Your task to perform on an android device: Search for vegetarian restaurants on Maps Image 0: 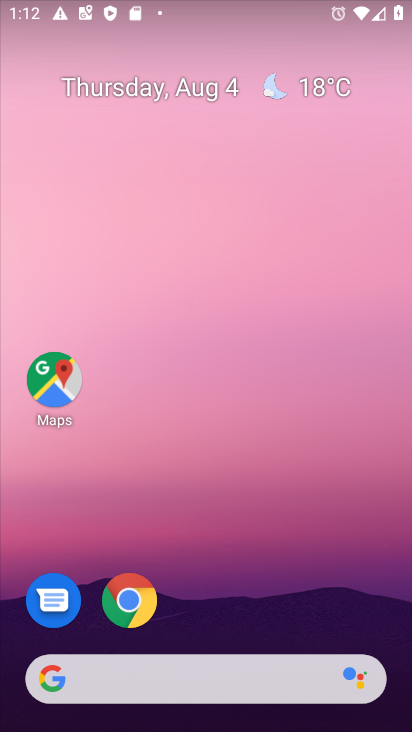
Step 0: press home button
Your task to perform on an android device: Search for vegetarian restaurants on Maps Image 1: 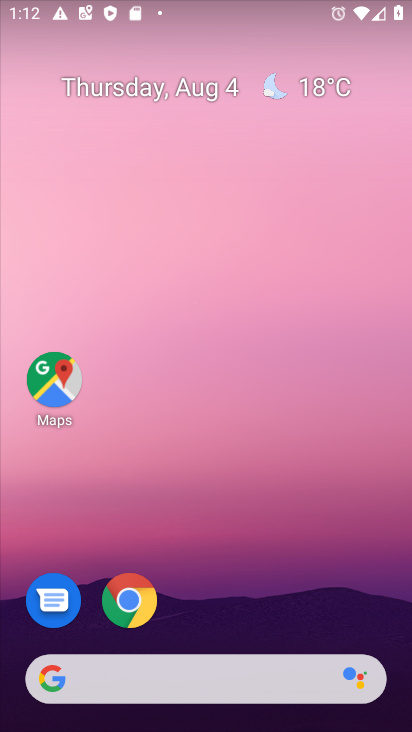
Step 1: click (43, 391)
Your task to perform on an android device: Search for vegetarian restaurants on Maps Image 2: 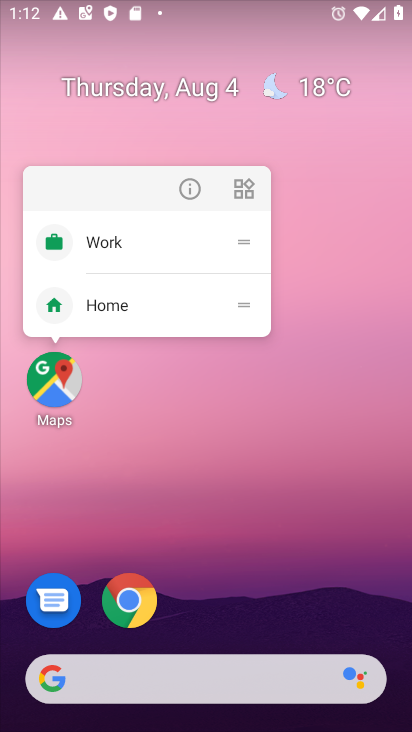
Step 2: click (54, 381)
Your task to perform on an android device: Search for vegetarian restaurants on Maps Image 3: 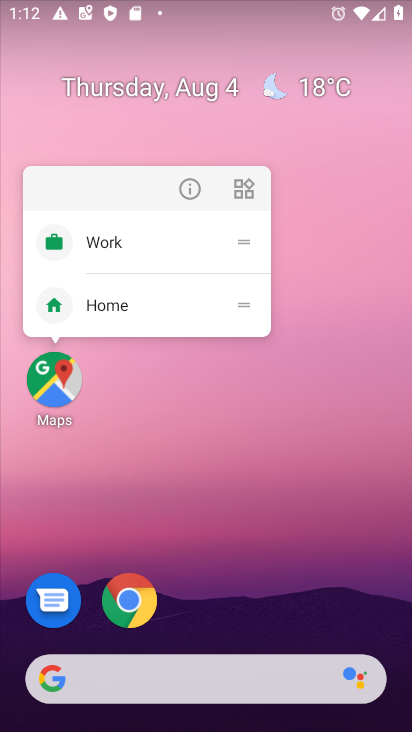
Step 3: click (54, 380)
Your task to perform on an android device: Search for vegetarian restaurants on Maps Image 4: 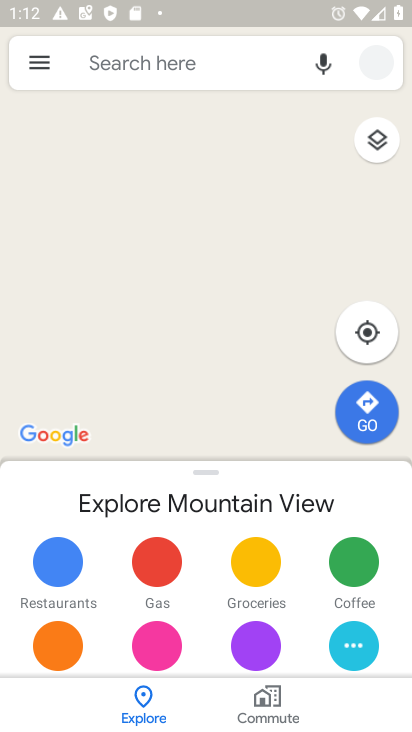
Step 4: click (156, 55)
Your task to perform on an android device: Search for vegetarian restaurants on Maps Image 5: 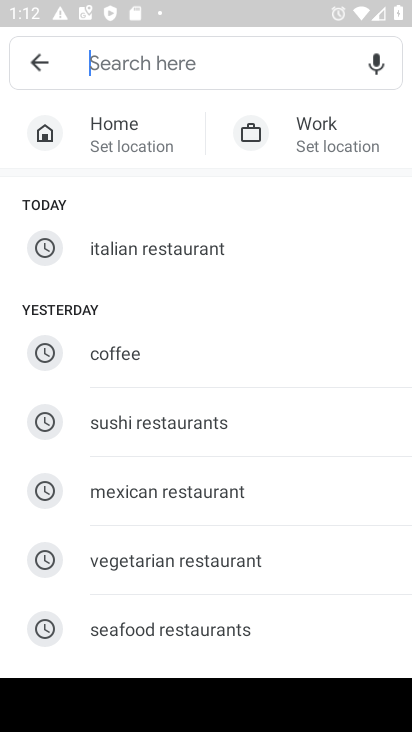
Step 5: click (184, 558)
Your task to perform on an android device: Search for vegetarian restaurants on Maps Image 6: 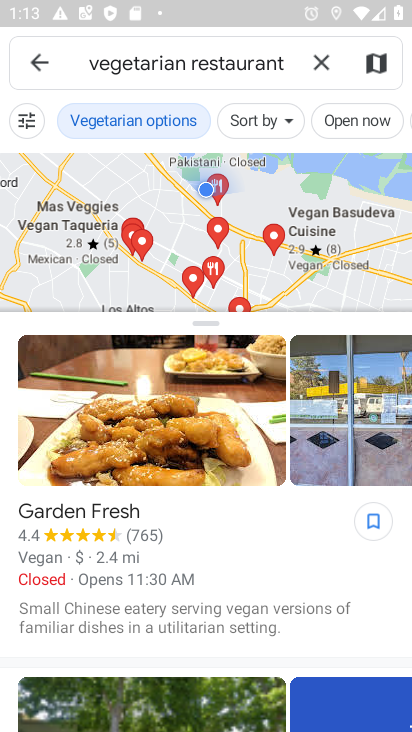
Step 6: task complete